Your task to perform on an android device: Go to sound settings Image 0: 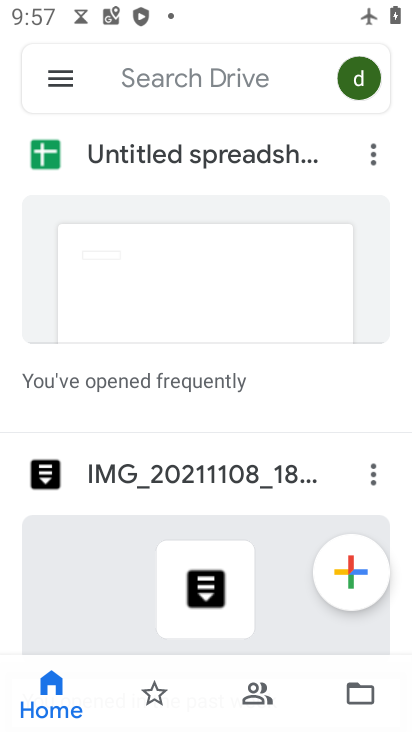
Step 0: press home button
Your task to perform on an android device: Go to sound settings Image 1: 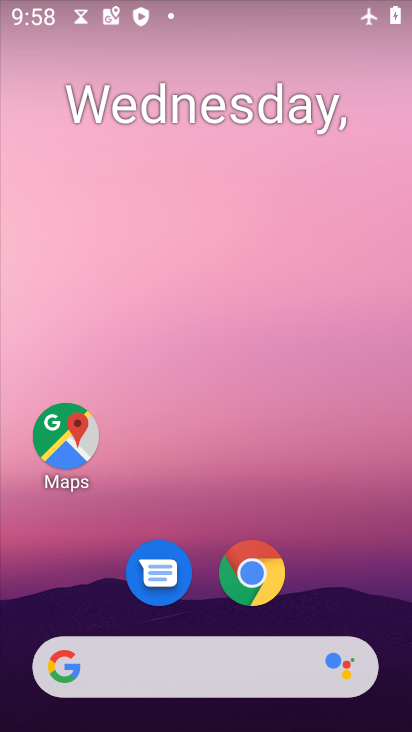
Step 1: drag from (338, 623) to (300, 209)
Your task to perform on an android device: Go to sound settings Image 2: 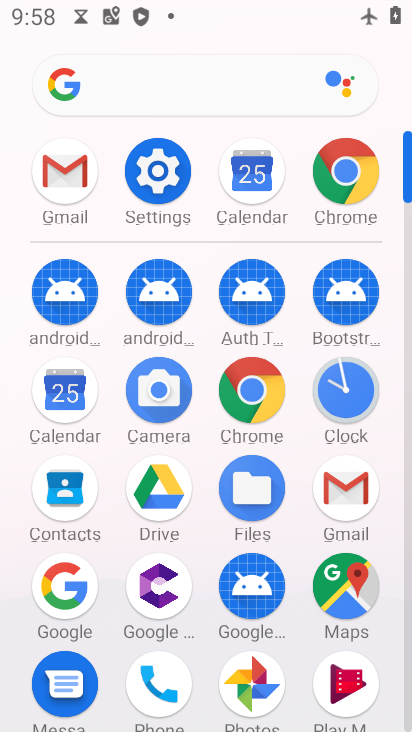
Step 2: click (176, 156)
Your task to perform on an android device: Go to sound settings Image 3: 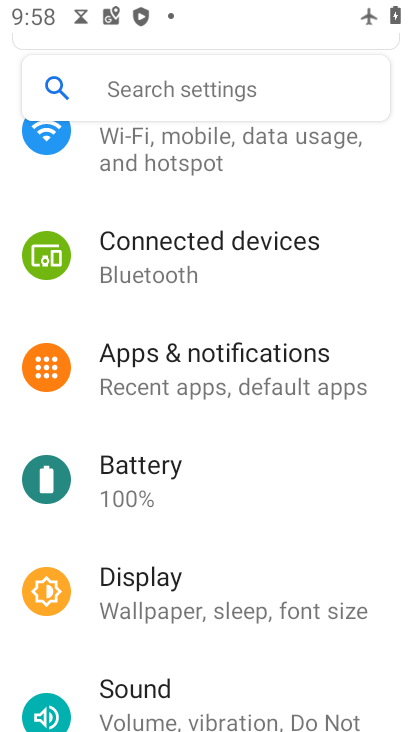
Step 3: drag from (205, 249) to (241, 485)
Your task to perform on an android device: Go to sound settings Image 4: 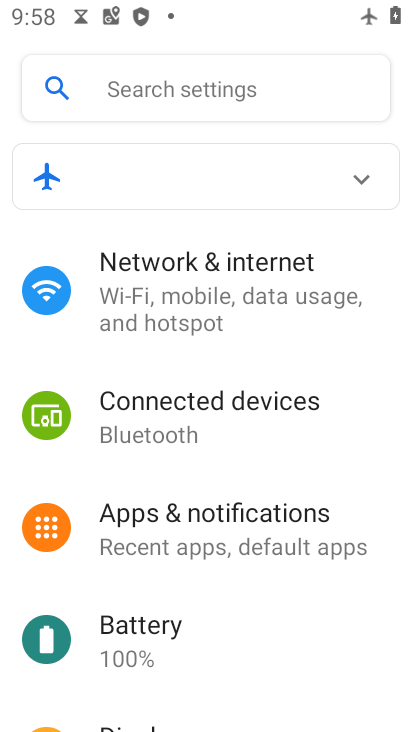
Step 4: click (241, 491)
Your task to perform on an android device: Go to sound settings Image 5: 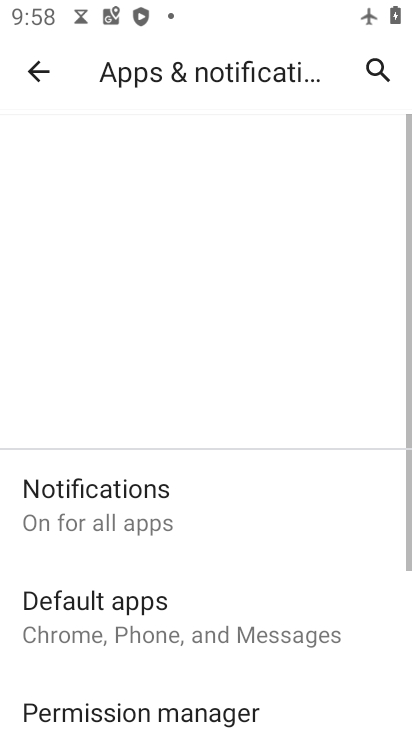
Step 5: drag from (269, 503) to (258, 286)
Your task to perform on an android device: Go to sound settings Image 6: 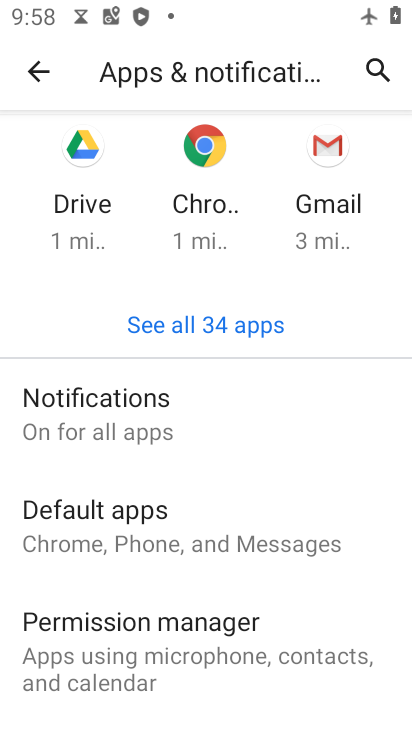
Step 6: click (56, 72)
Your task to perform on an android device: Go to sound settings Image 7: 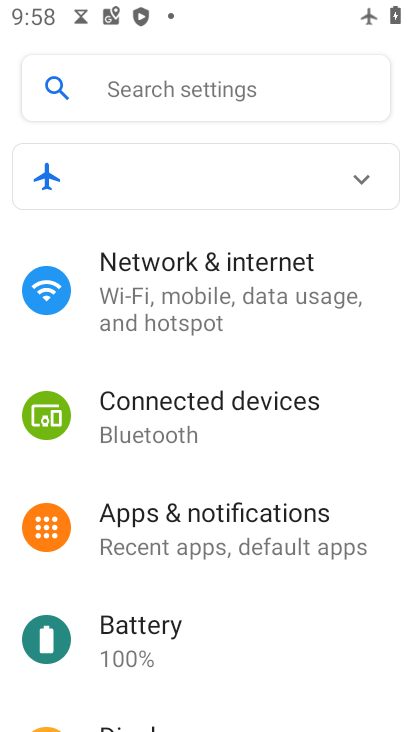
Step 7: drag from (250, 635) to (253, 319)
Your task to perform on an android device: Go to sound settings Image 8: 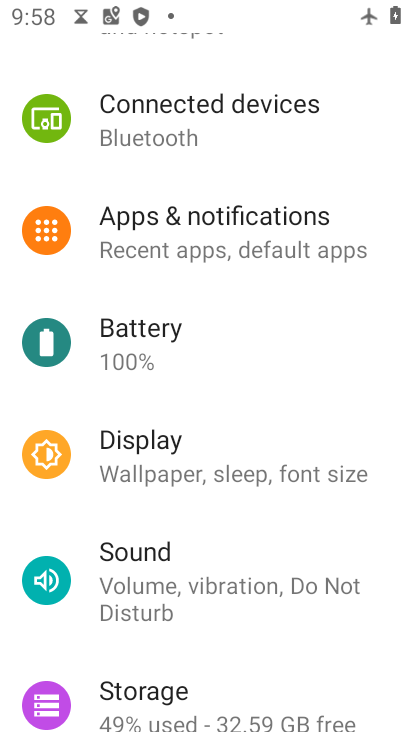
Step 8: click (216, 581)
Your task to perform on an android device: Go to sound settings Image 9: 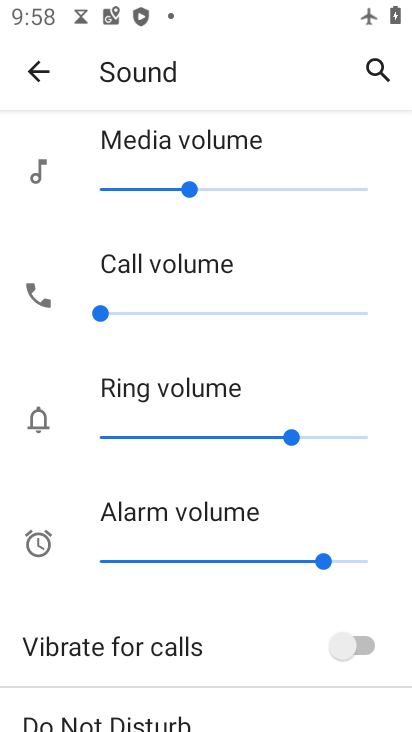
Step 9: task complete